Your task to perform on an android device: What's the news in Ecuador? Image 0: 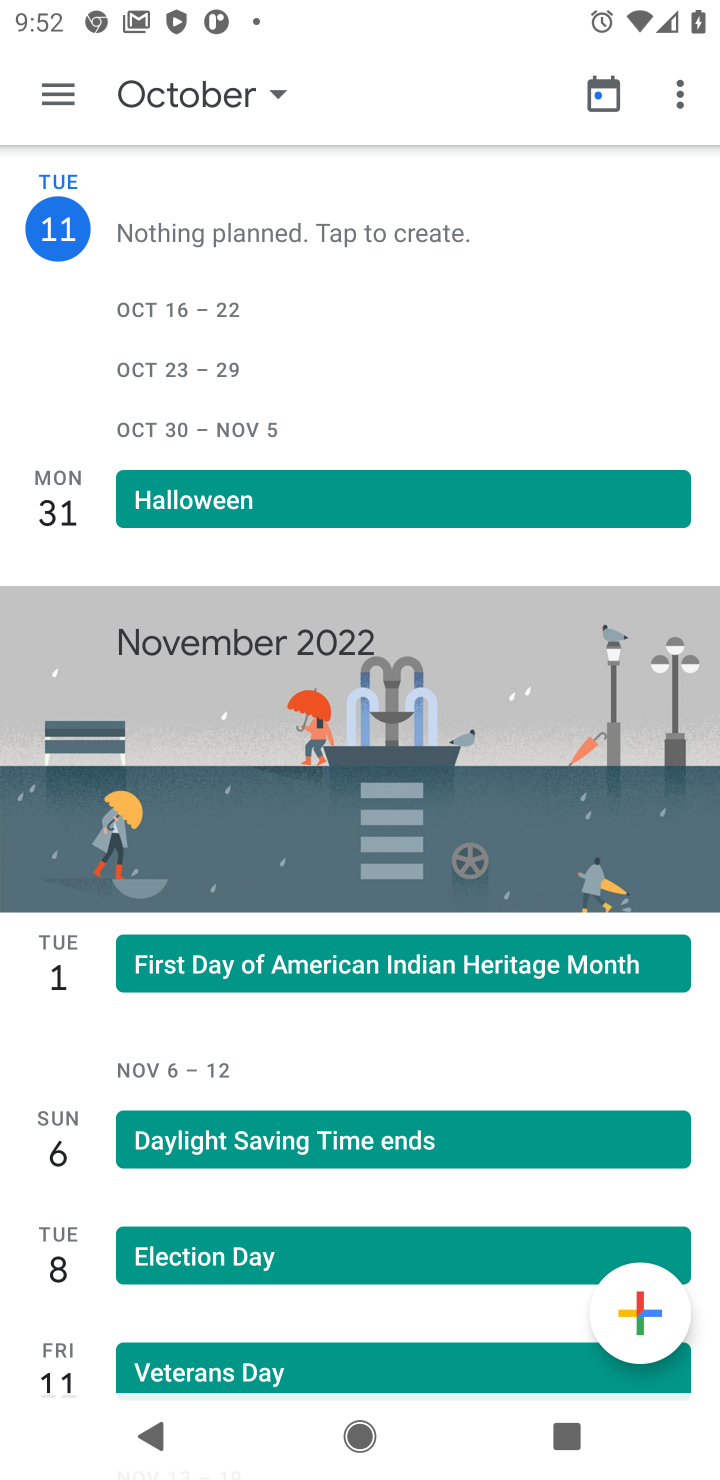
Step 0: press home button
Your task to perform on an android device: What's the news in Ecuador? Image 1: 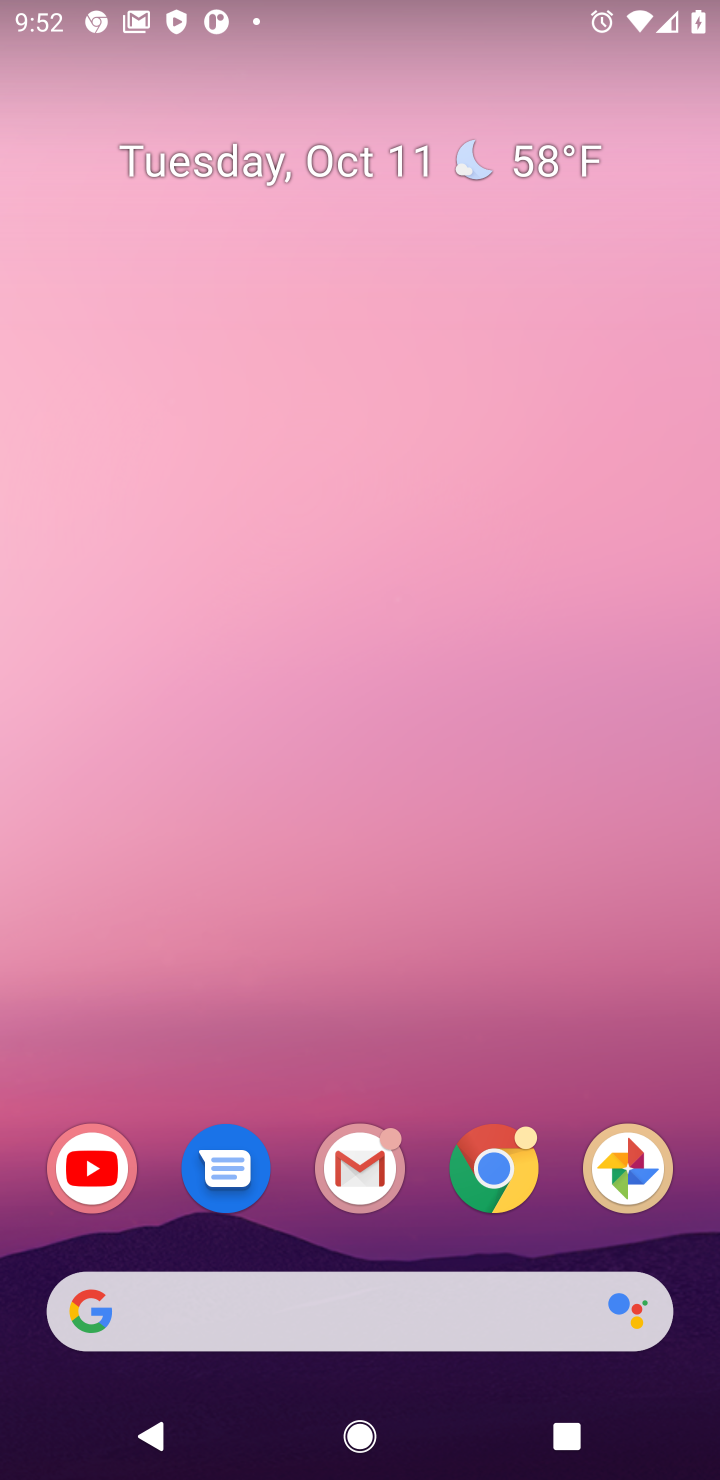
Step 1: press back button
Your task to perform on an android device: What's the news in Ecuador? Image 2: 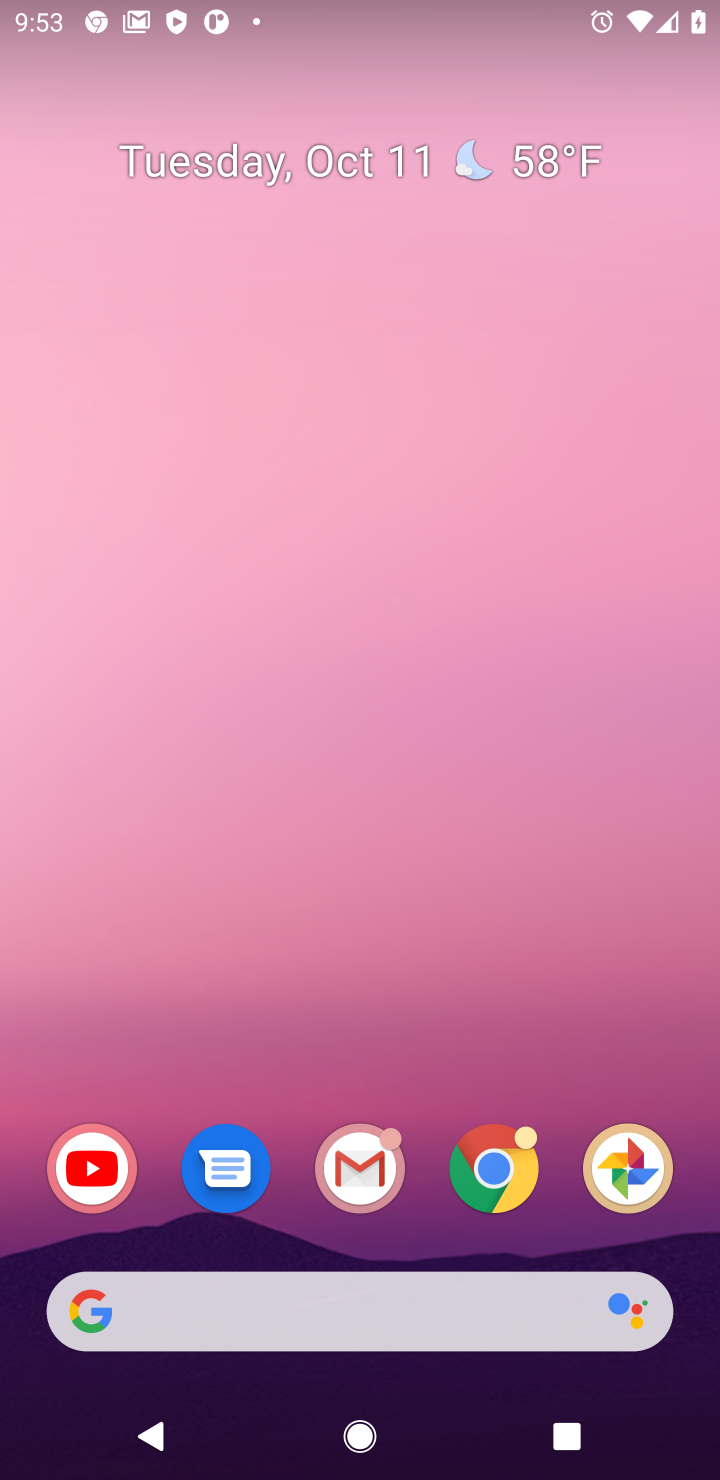
Step 2: click (508, 1175)
Your task to perform on an android device: What's the news in Ecuador? Image 3: 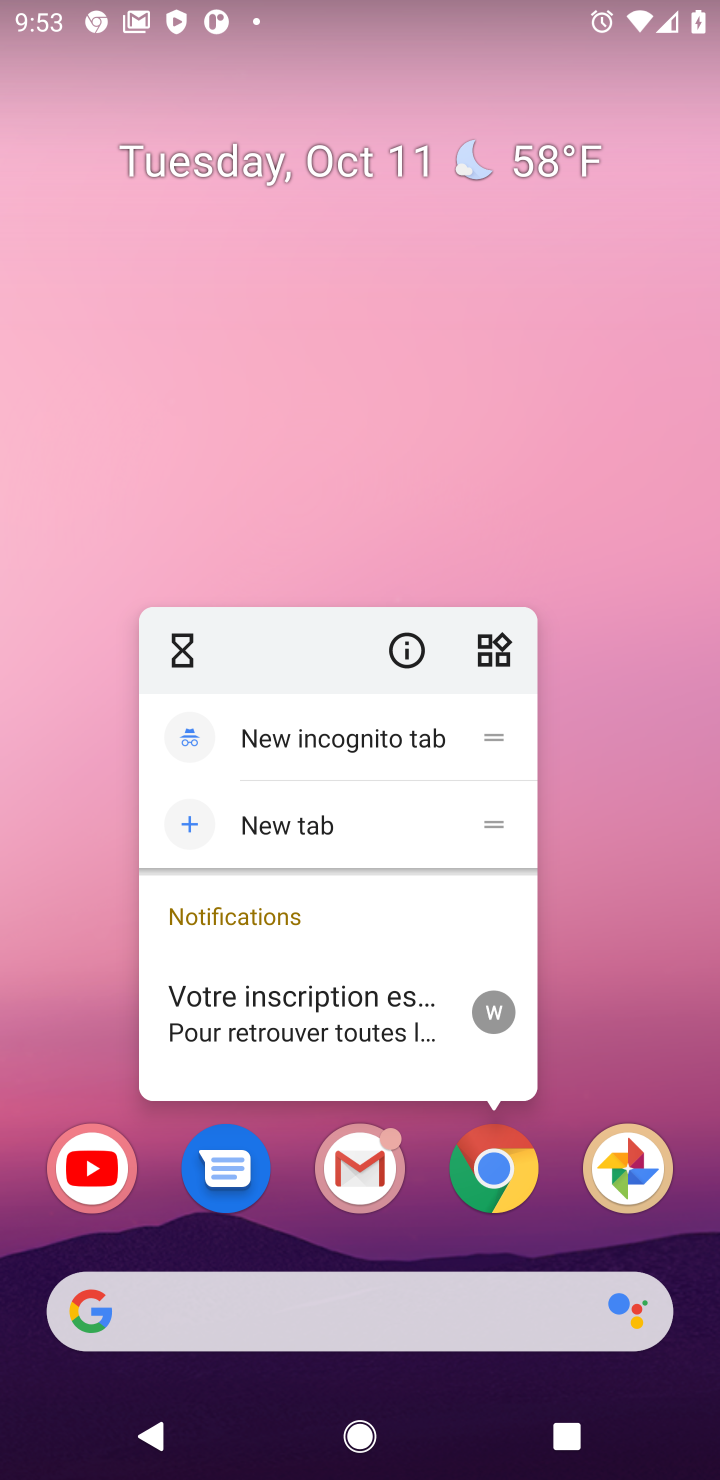
Step 3: press home button
Your task to perform on an android device: What's the news in Ecuador? Image 4: 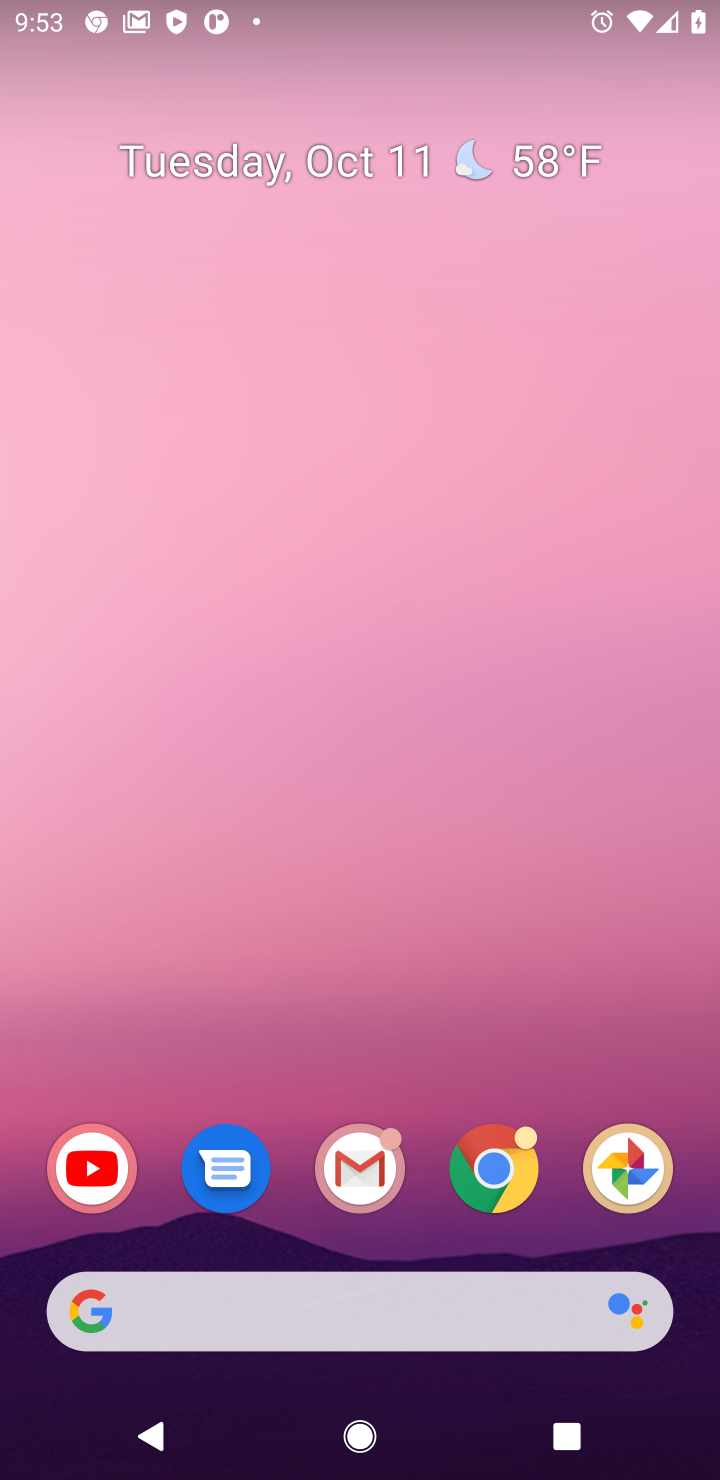
Step 4: click (494, 1183)
Your task to perform on an android device: What's the news in Ecuador? Image 5: 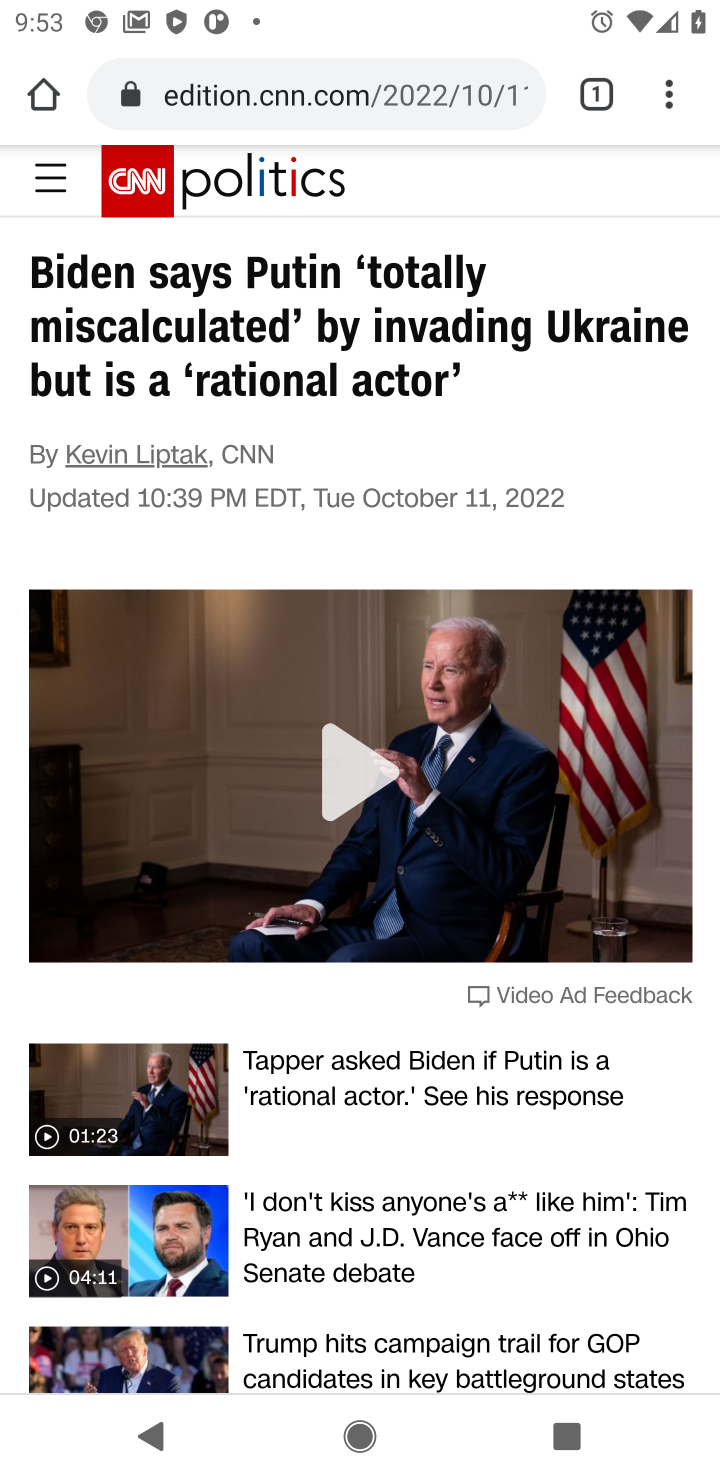
Step 5: click (195, 81)
Your task to perform on an android device: What's the news in Ecuador? Image 6: 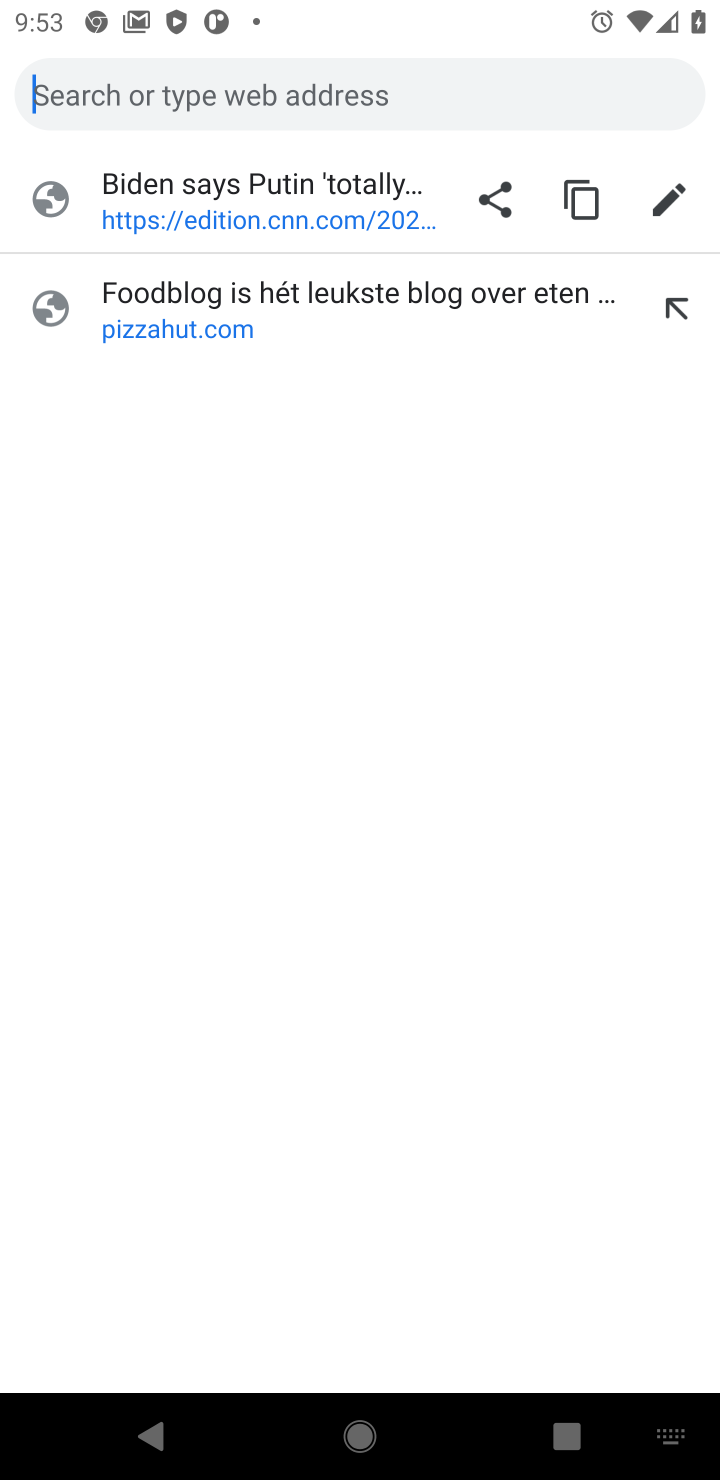
Step 6: type "news in ecuador"
Your task to perform on an android device: What's the news in Ecuador? Image 7: 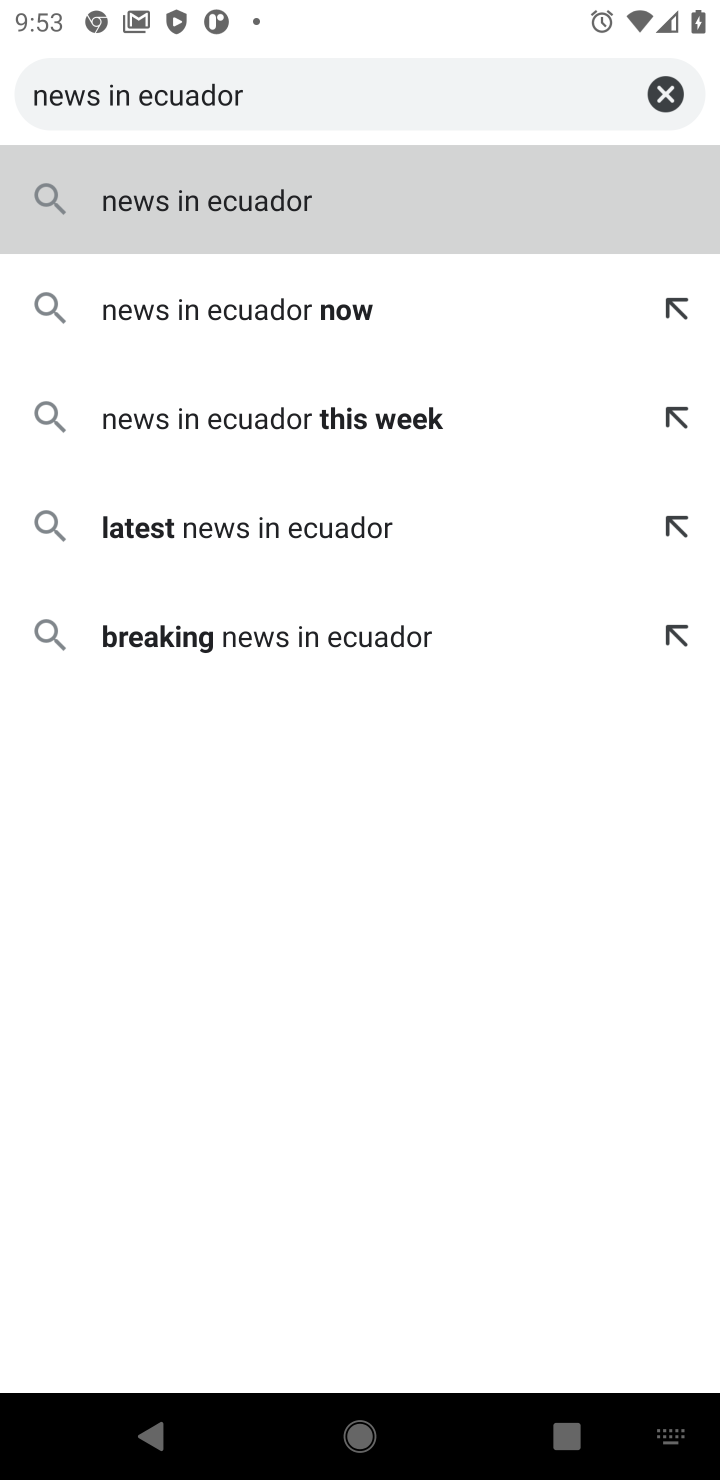
Step 7: click (229, 216)
Your task to perform on an android device: What's the news in Ecuador? Image 8: 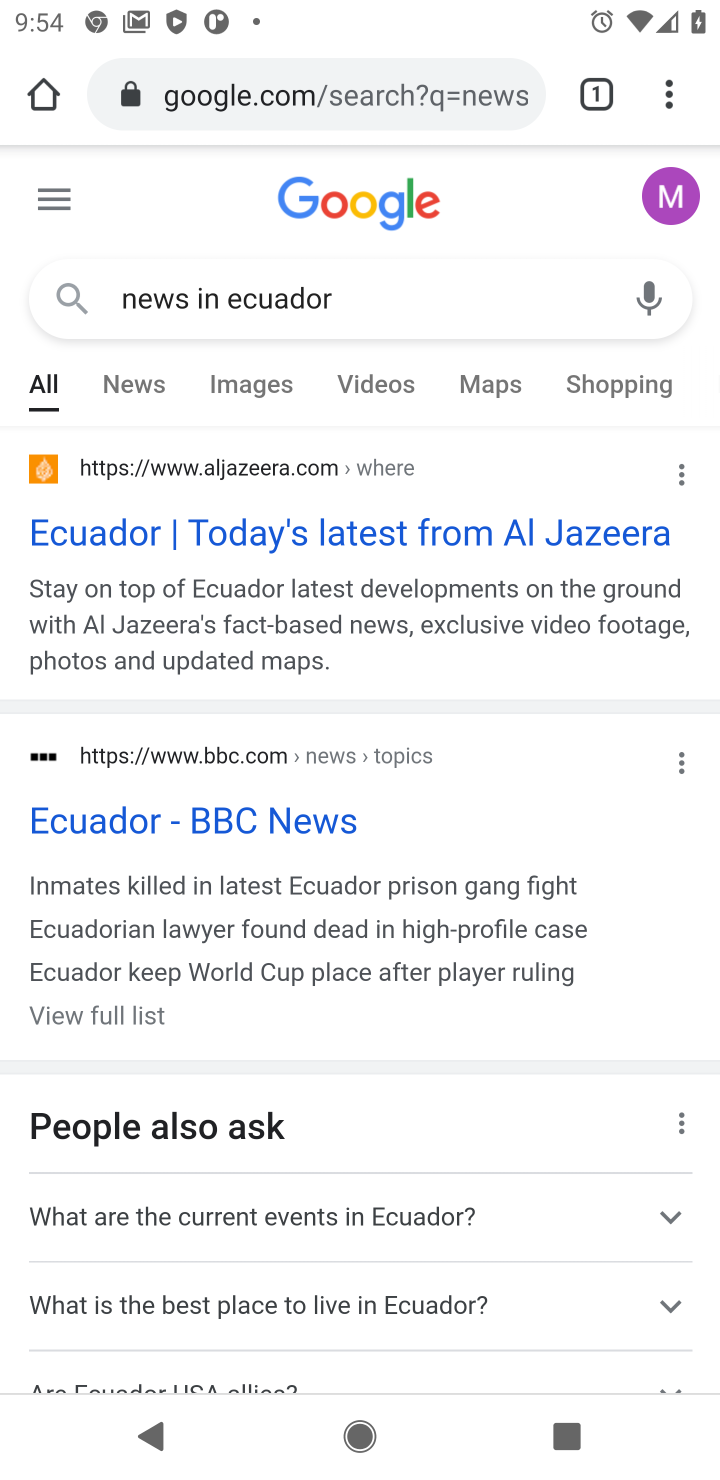
Step 8: click (232, 830)
Your task to perform on an android device: What's the news in Ecuador? Image 9: 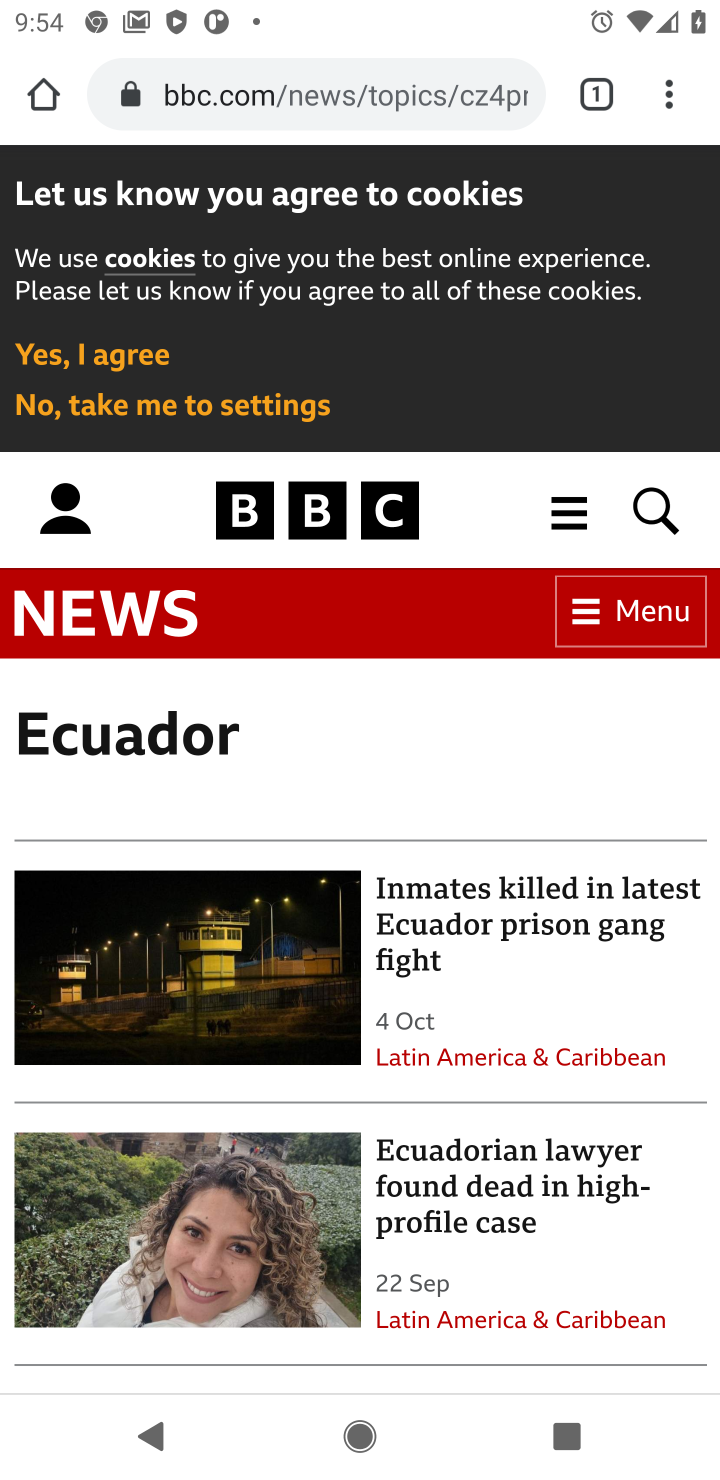
Step 9: click (536, 907)
Your task to perform on an android device: What's the news in Ecuador? Image 10: 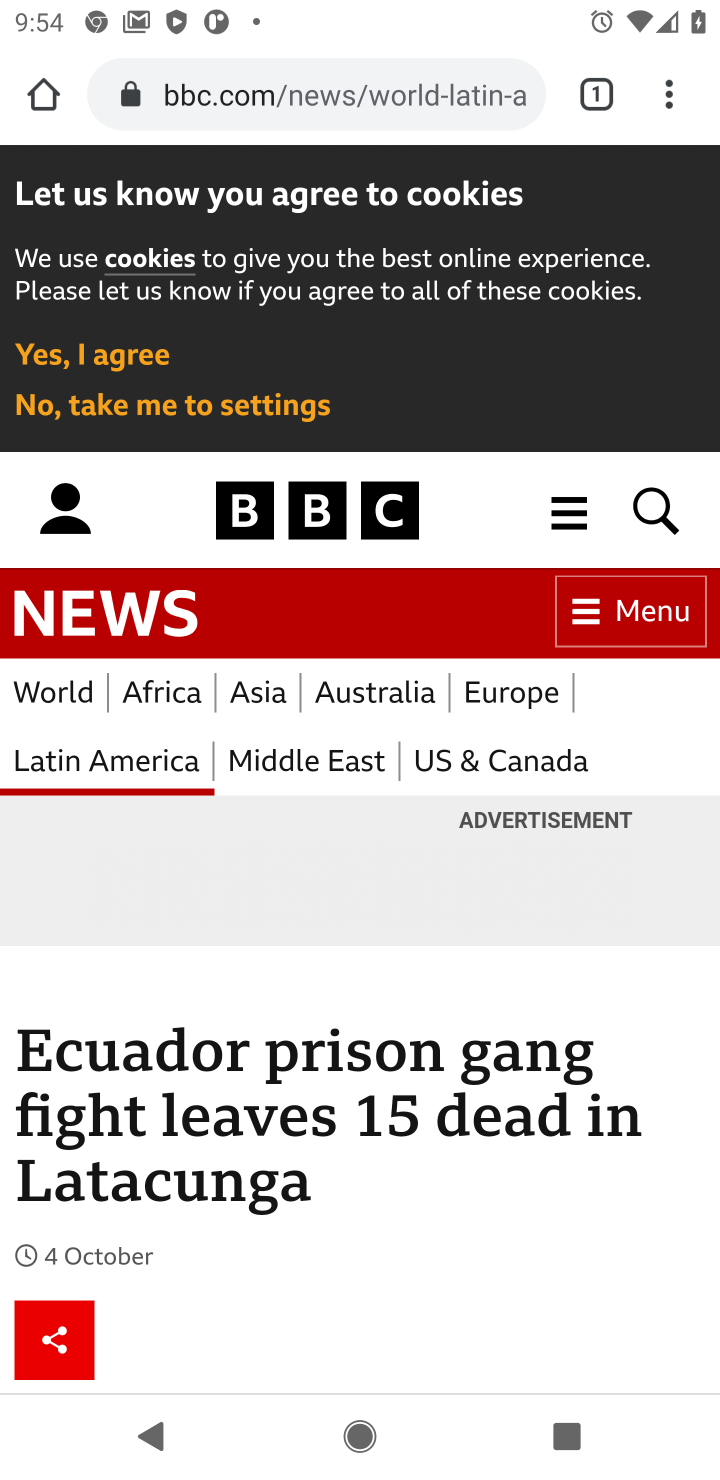
Step 10: task complete